Your task to perform on an android device: Open battery settings Image 0: 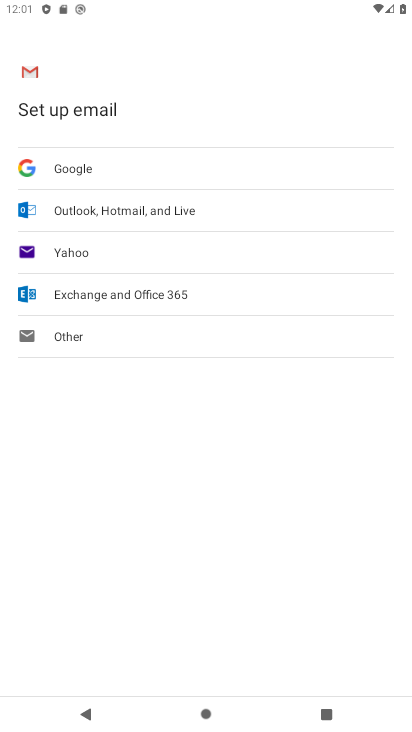
Step 0: press home button
Your task to perform on an android device: Open battery settings Image 1: 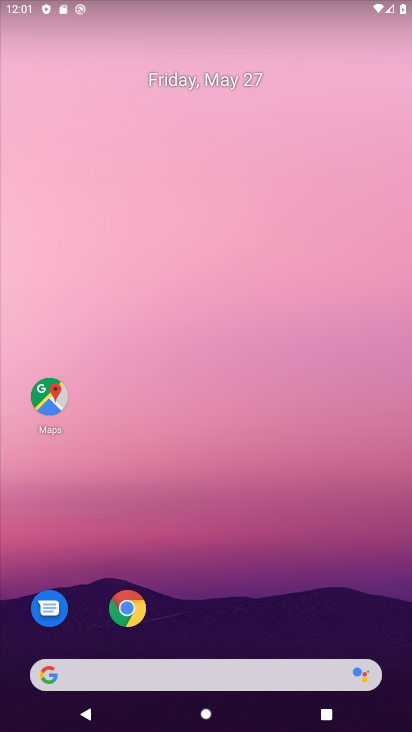
Step 1: drag from (163, 677) to (279, 218)
Your task to perform on an android device: Open battery settings Image 2: 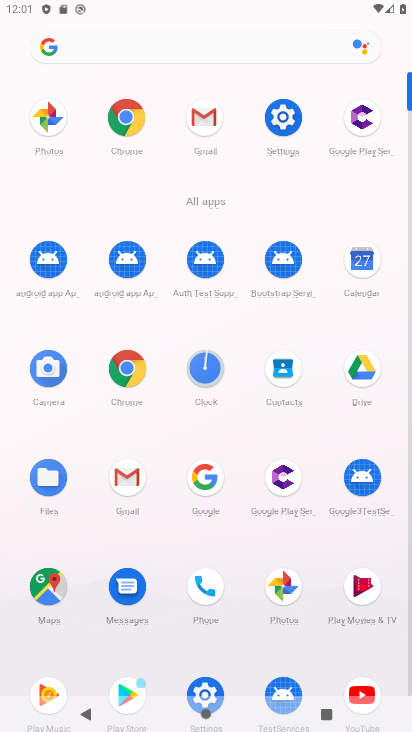
Step 2: click (278, 114)
Your task to perform on an android device: Open battery settings Image 3: 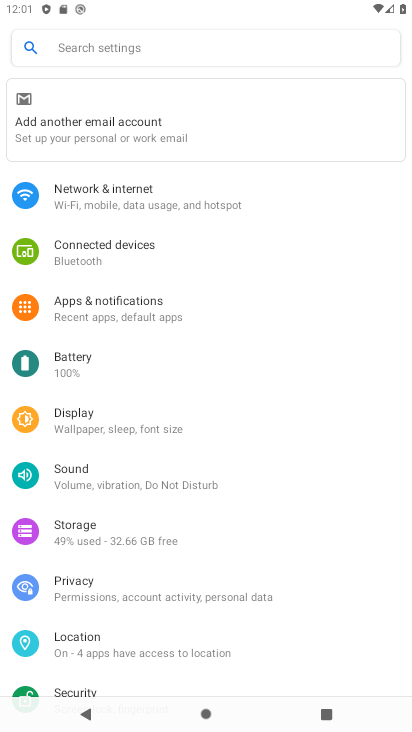
Step 3: click (83, 361)
Your task to perform on an android device: Open battery settings Image 4: 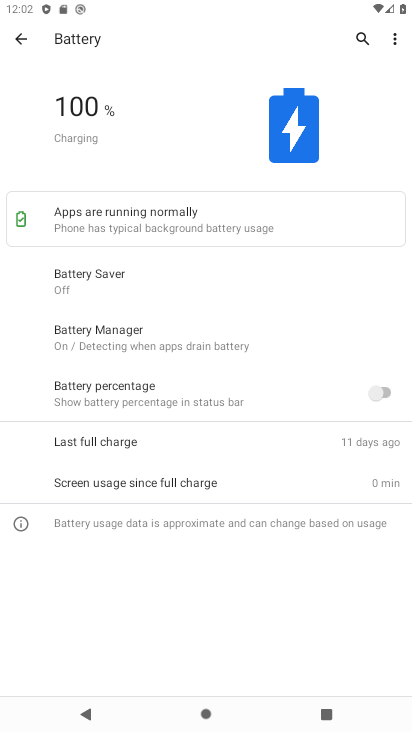
Step 4: task complete